Your task to perform on an android device: turn notification dots on Image 0: 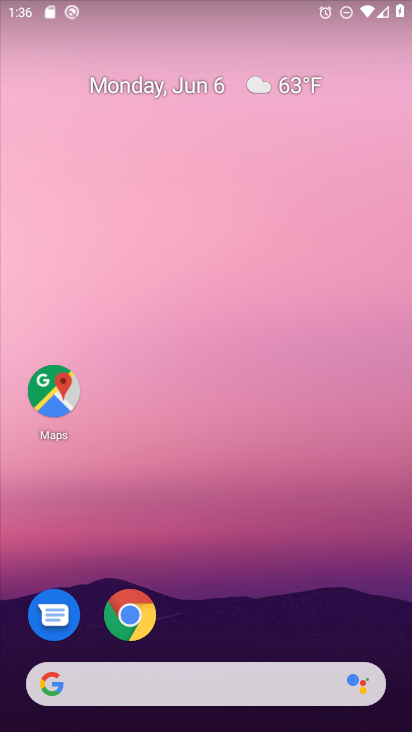
Step 0: drag from (276, 614) to (214, 68)
Your task to perform on an android device: turn notification dots on Image 1: 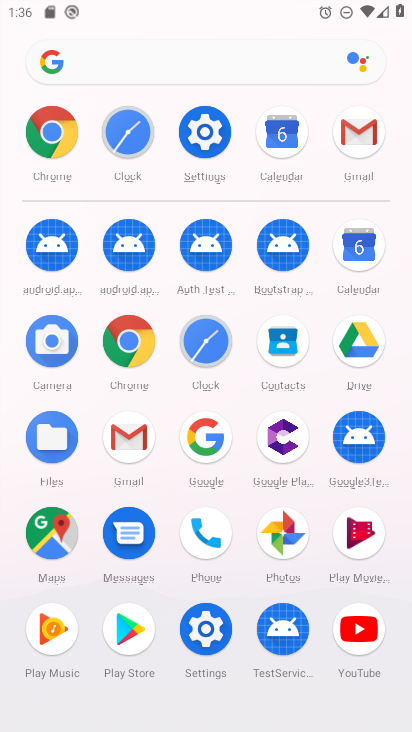
Step 1: click (193, 132)
Your task to perform on an android device: turn notification dots on Image 2: 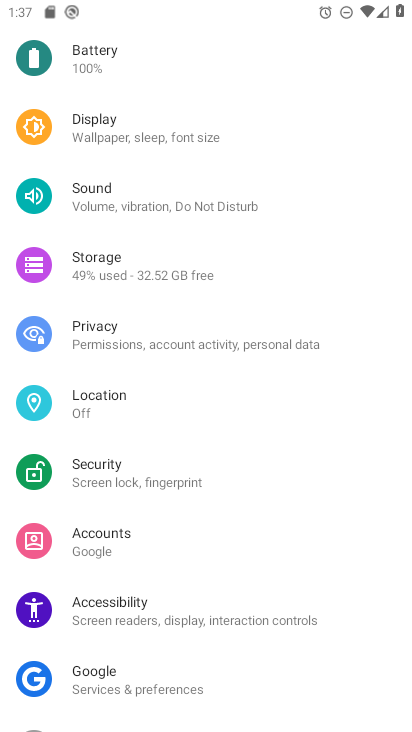
Step 2: drag from (132, 157) to (158, 670)
Your task to perform on an android device: turn notification dots on Image 3: 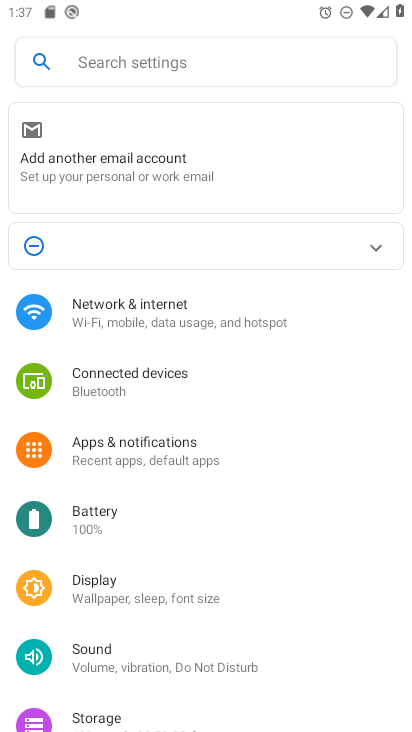
Step 3: click (142, 463)
Your task to perform on an android device: turn notification dots on Image 4: 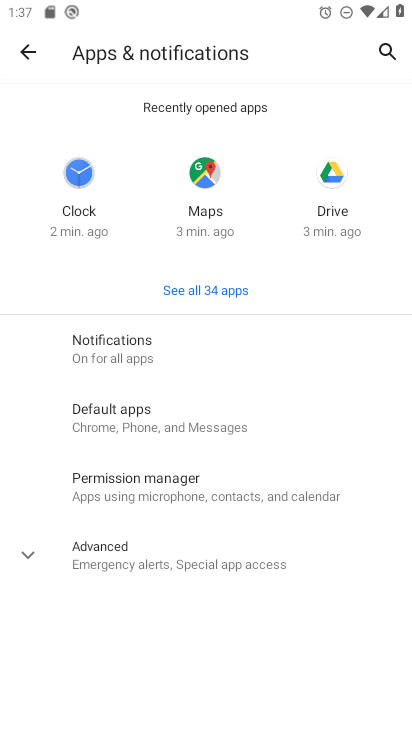
Step 4: click (137, 339)
Your task to perform on an android device: turn notification dots on Image 5: 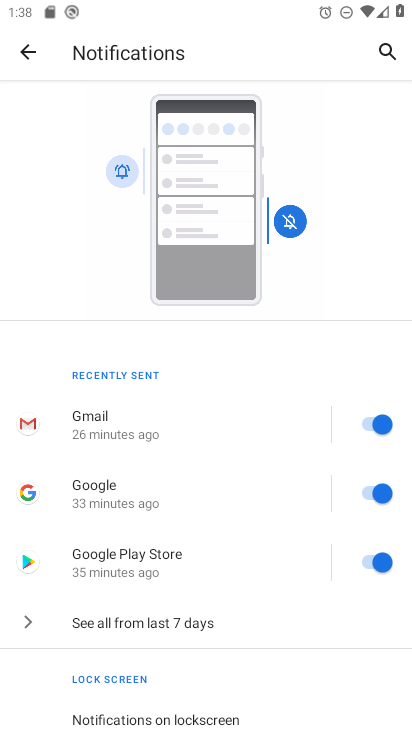
Step 5: drag from (209, 657) to (159, 37)
Your task to perform on an android device: turn notification dots on Image 6: 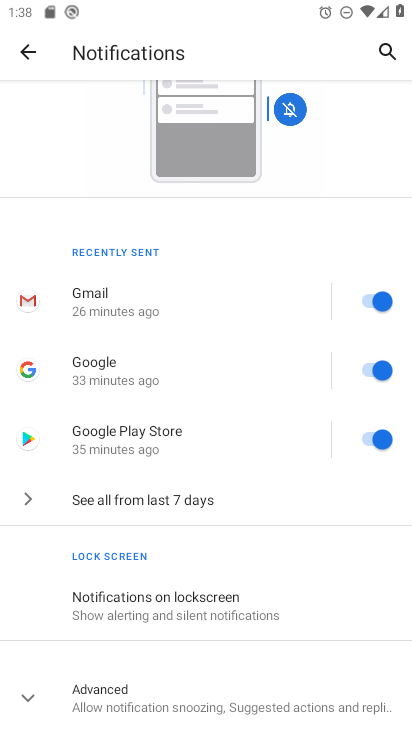
Step 6: drag from (182, 611) to (176, 335)
Your task to perform on an android device: turn notification dots on Image 7: 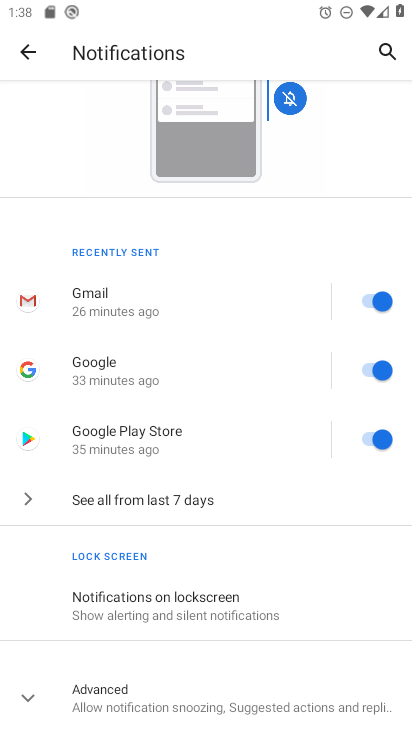
Step 7: click (163, 675)
Your task to perform on an android device: turn notification dots on Image 8: 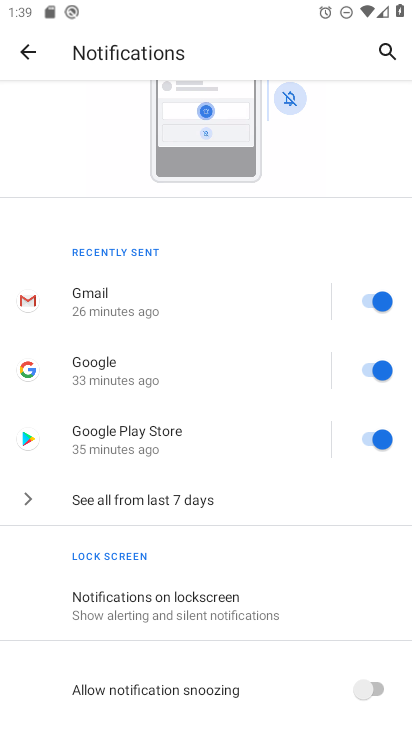
Step 8: task complete